Your task to perform on an android device: add a contact Image 0: 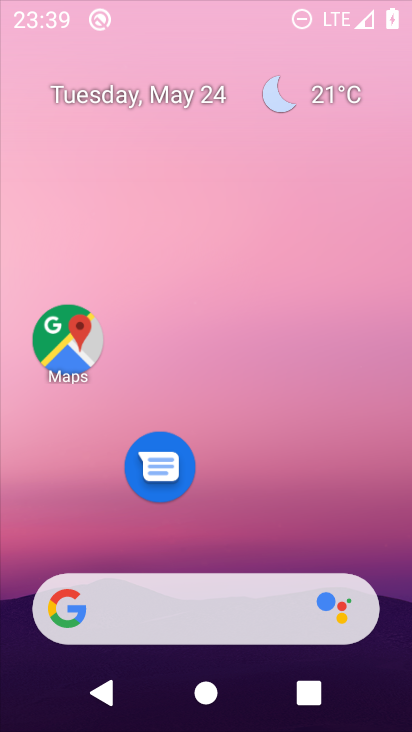
Step 0: click (262, 37)
Your task to perform on an android device: add a contact Image 1: 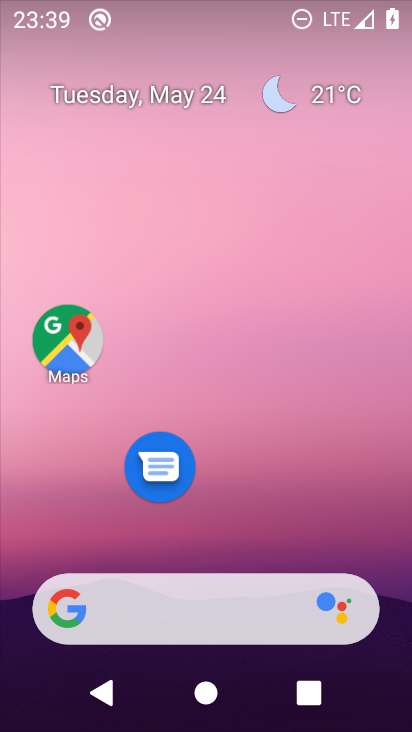
Step 1: drag from (174, 536) to (198, 7)
Your task to perform on an android device: add a contact Image 2: 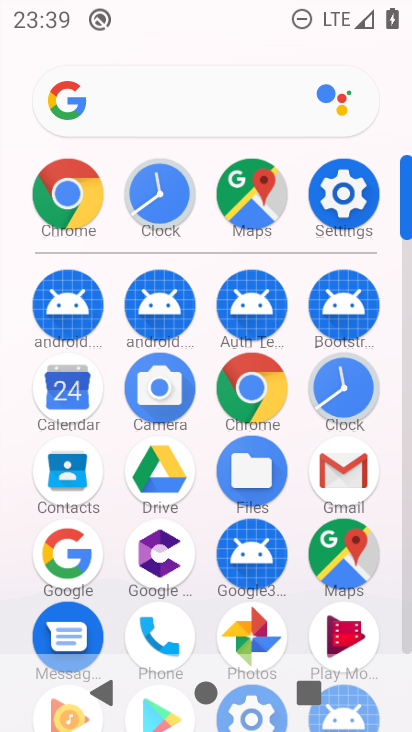
Step 2: drag from (203, 592) to (202, 312)
Your task to perform on an android device: add a contact Image 3: 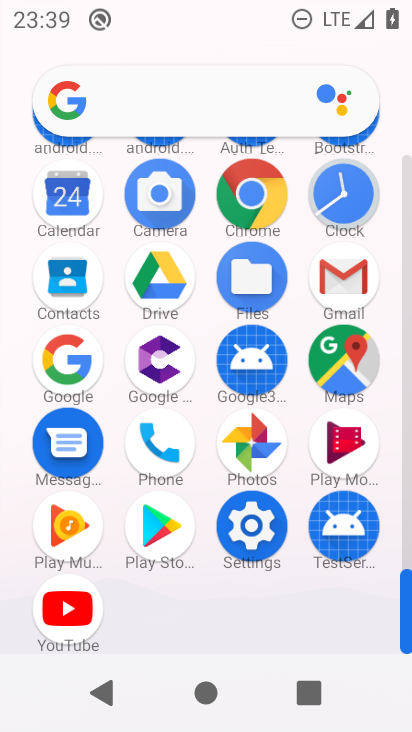
Step 3: click (67, 276)
Your task to perform on an android device: add a contact Image 4: 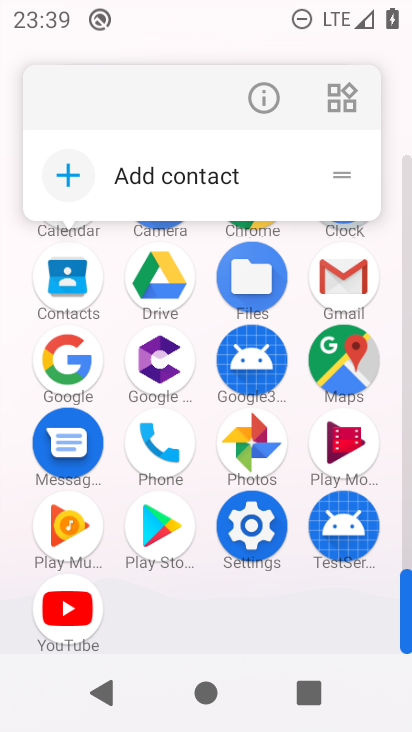
Step 4: click (255, 95)
Your task to perform on an android device: add a contact Image 5: 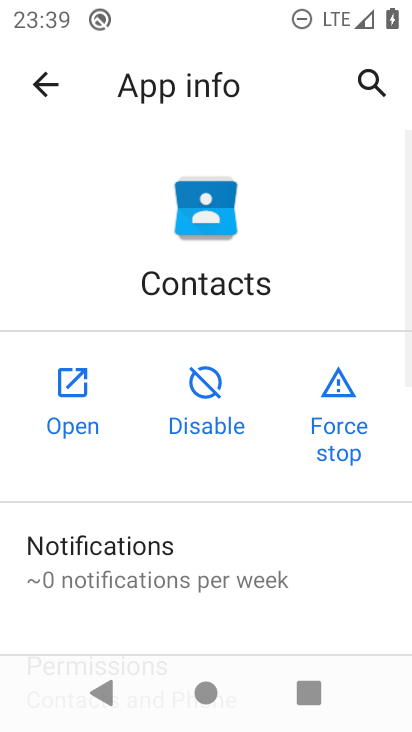
Step 5: click (45, 398)
Your task to perform on an android device: add a contact Image 6: 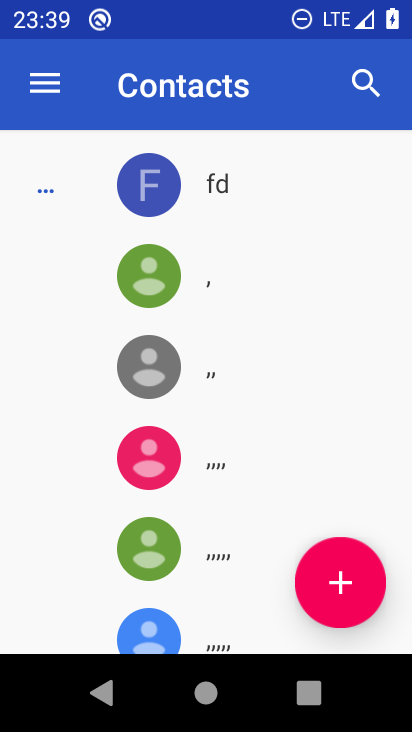
Step 6: drag from (264, 385) to (285, 195)
Your task to perform on an android device: add a contact Image 7: 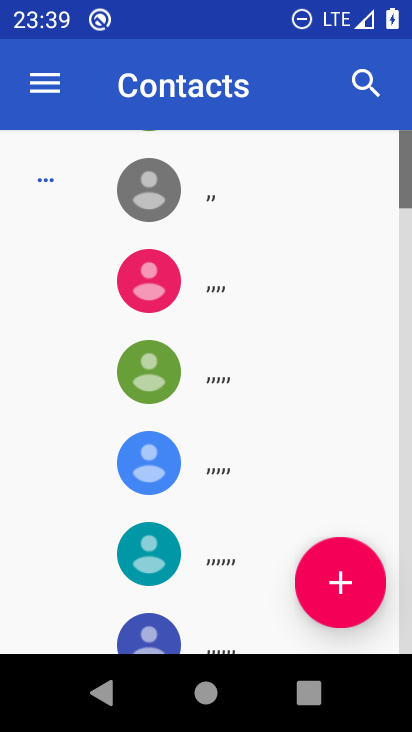
Step 7: click (353, 566)
Your task to perform on an android device: add a contact Image 8: 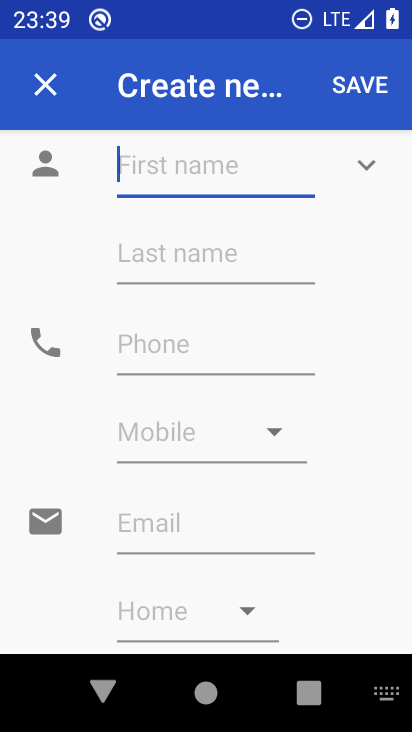
Step 8: type "nh"
Your task to perform on an android device: add a contact Image 9: 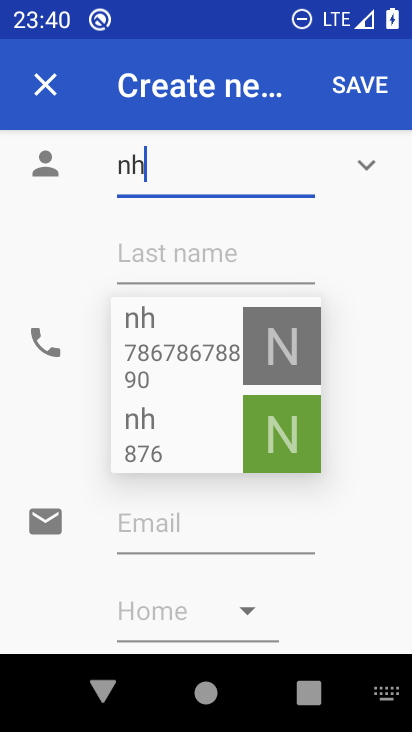
Step 9: click (342, 85)
Your task to perform on an android device: add a contact Image 10: 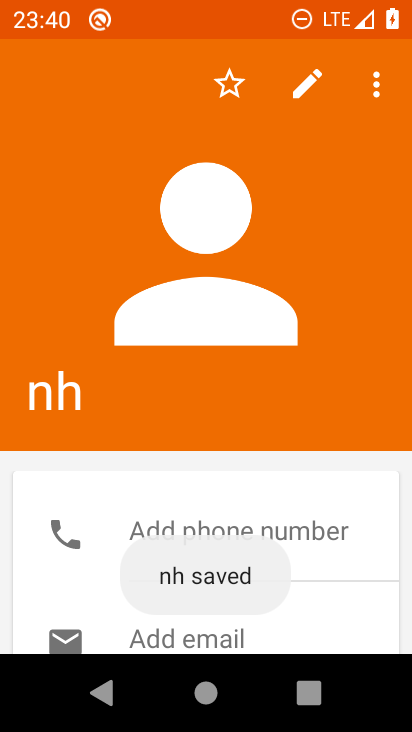
Step 10: task complete